Your task to perform on an android device: open a new tab in the chrome app Image 0: 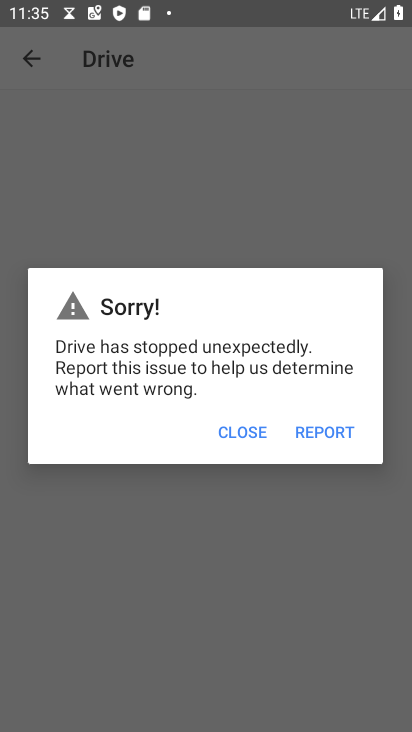
Step 0: press home button
Your task to perform on an android device: open a new tab in the chrome app Image 1: 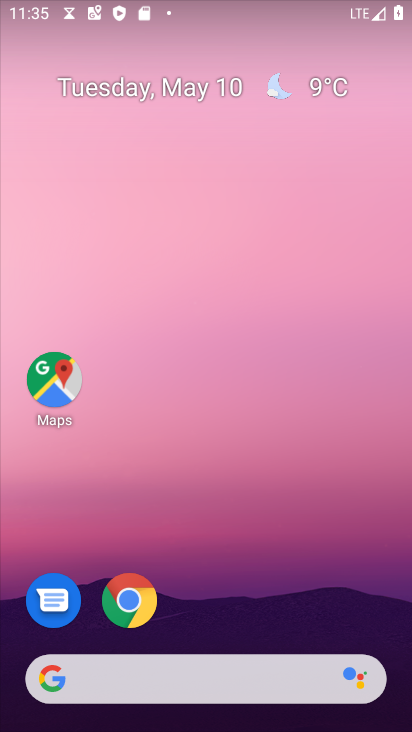
Step 1: click (115, 598)
Your task to perform on an android device: open a new tab in the chrome app Image 2: 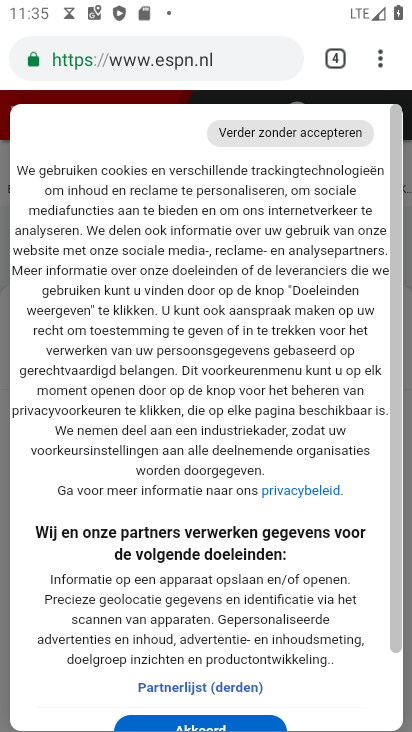
Step 2: click (368, 56)
Your task to perform on an android device: open a new tab in the chrome app Image 3: 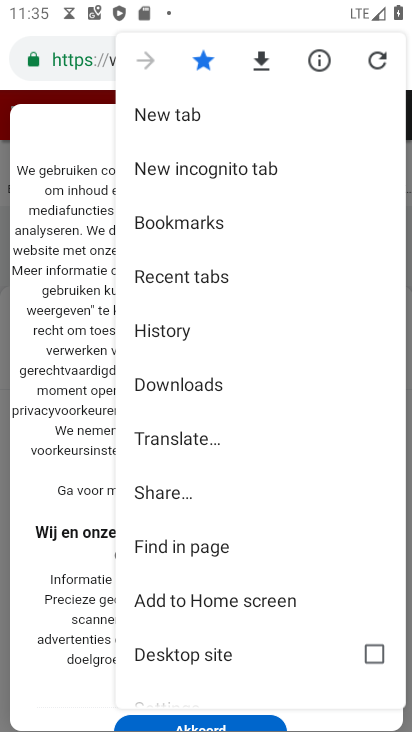
Step 3: click (190, 123)
Your task to perform on an android device: open a new tab in the chrome app Image 4: 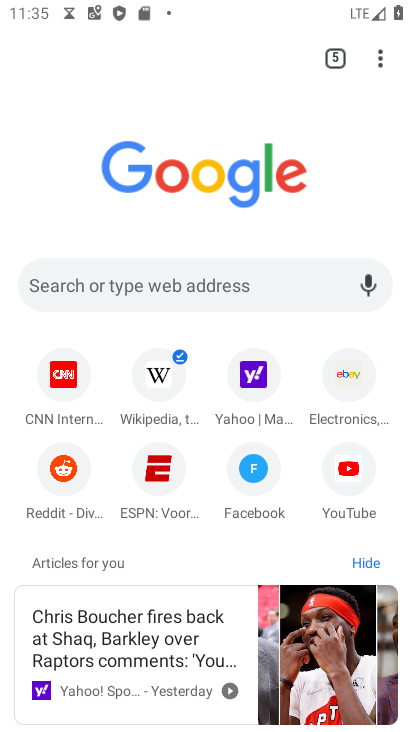
Step 4: task complete